Your task to perform on an android device: Is it going to rain tomorrow? Image 0: 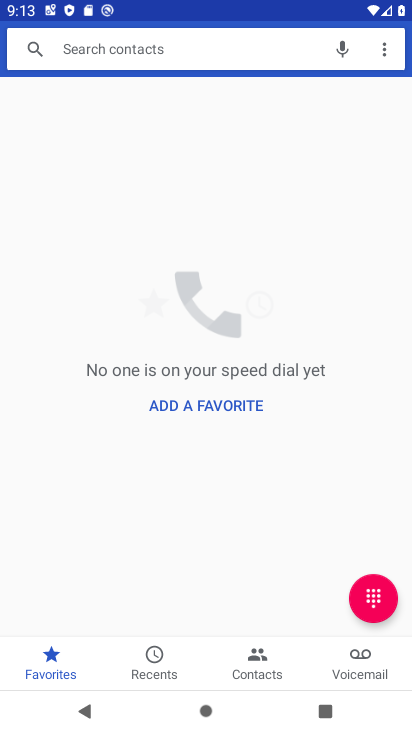
Step 0: press home button
Your task to perform on an android device: Is it going to rain tomorrow? Image 1: 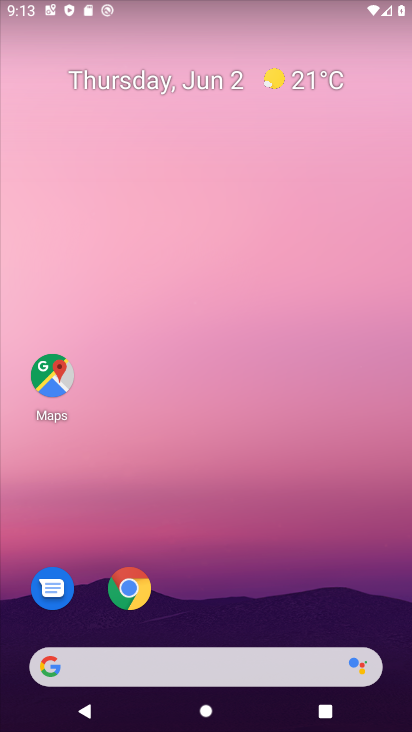
Step 1: drag from (188, 653) to (20, 253)
Your task to perform on an android device: Is it going to rain tomorrow? Image 2: 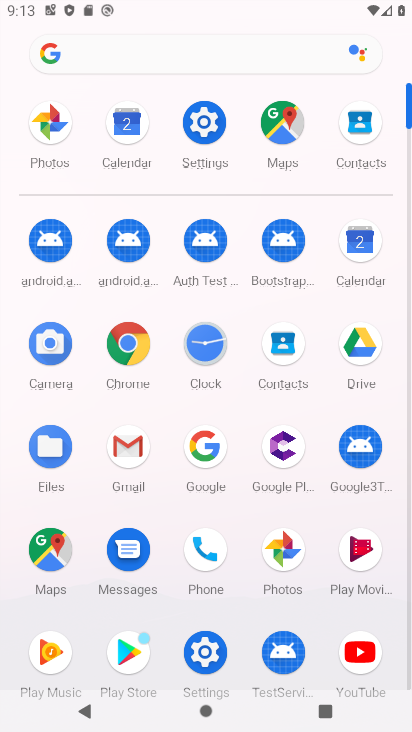
Step 2: click (207, 443)
Your task to perform on an android device: Is it going to rain tomorrow? Image 3: 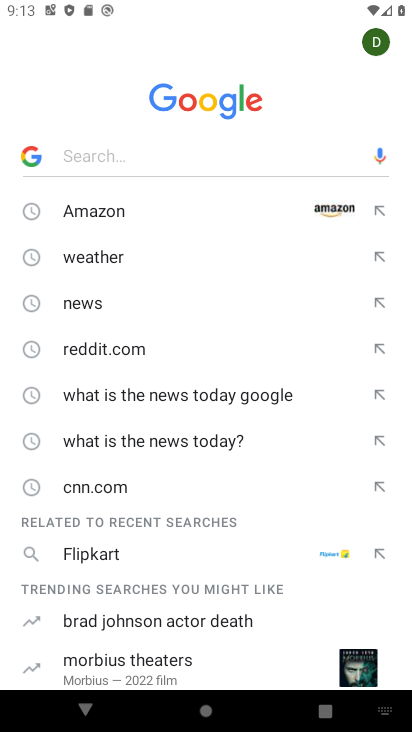
Step 3: click (129, 257)
Your task to perform on an android device: Is it going to rain tomorrow? Image 4: 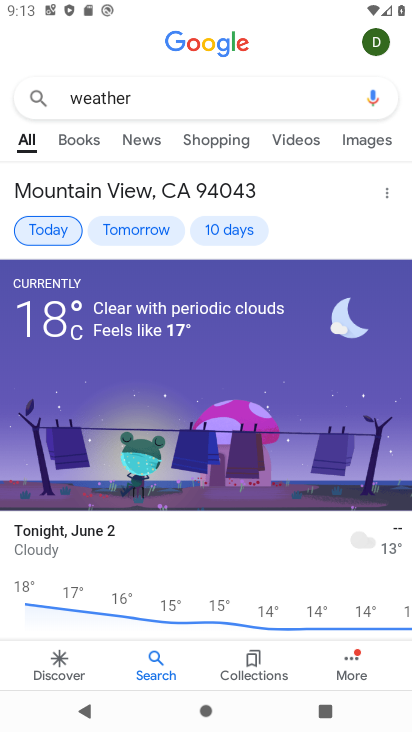
Step 4: click (142, 242)
Your task to perform on an android device: Is it going to rain tomorrow? Image 5: 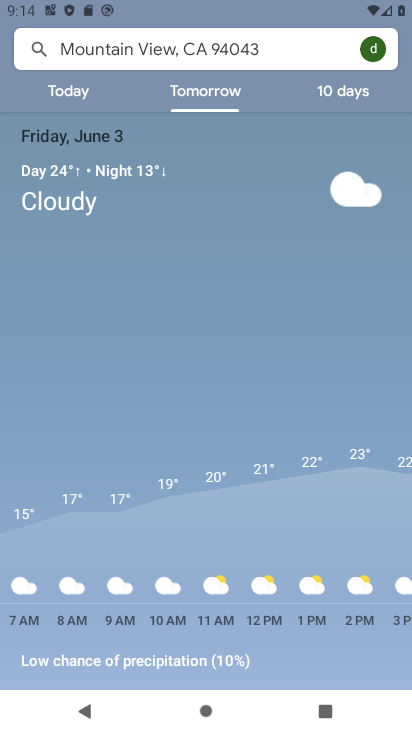
Step 5: task complete